Your task to perform on an android device: Open the Play Movies app and select the watchlist tab. Image 0: 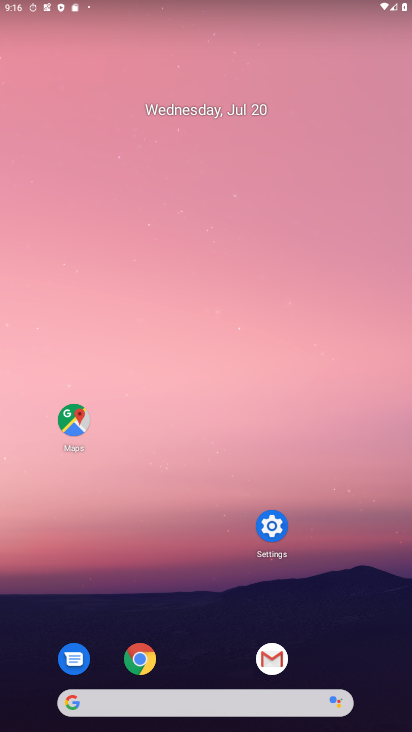
Step 0: press home button
Your task to perform on an android device: Open the Play Movies app and select the watchlist tab. Image 1: 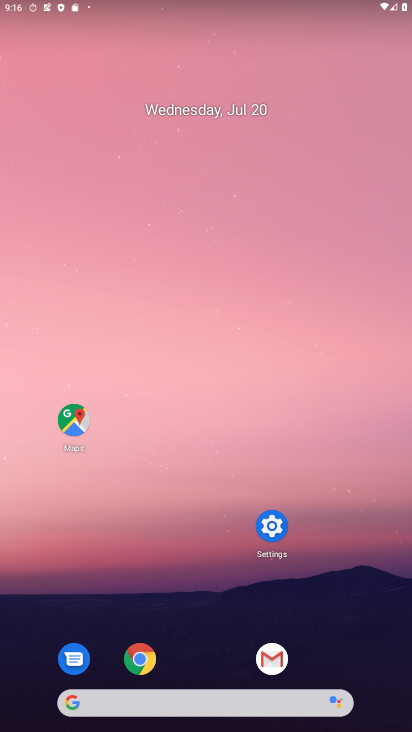
Step 1: drag from (297, 704) to (268, 257)
Your task to perform on an android device: Open the Play Movies app and select the watchlist tab. Image 2: 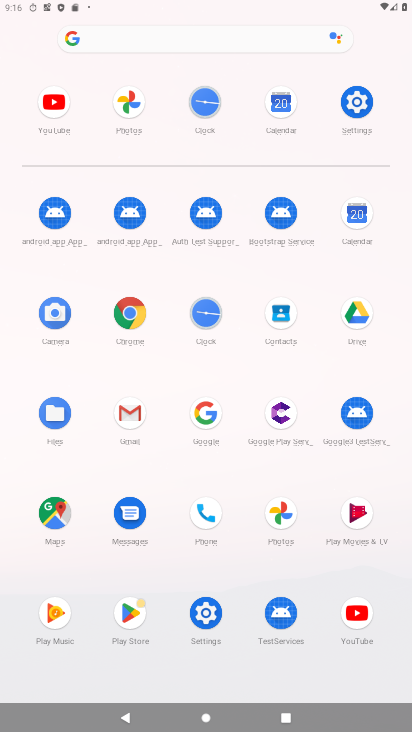
Step 2: click (358, 515)
Your task to perform on an android device: Open the Play Movies app and select the watchlist tab. Image 3: 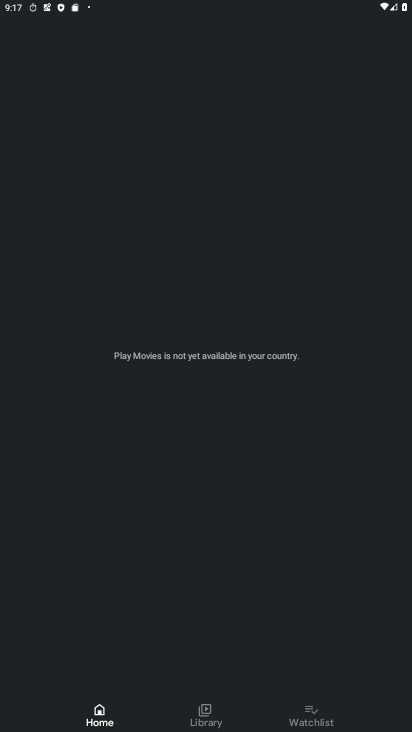
Step 3: click (323, 706)
Your task to perform on an android device: Open the Play Movies app and select the watchlist tab. Image 4: 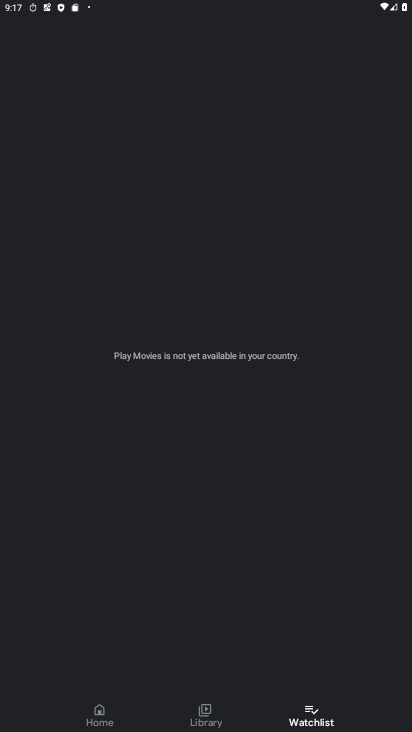
Step 4: task complete